Your task to perform on an android device: Search for Mexican restaurants on Maps Image 0: 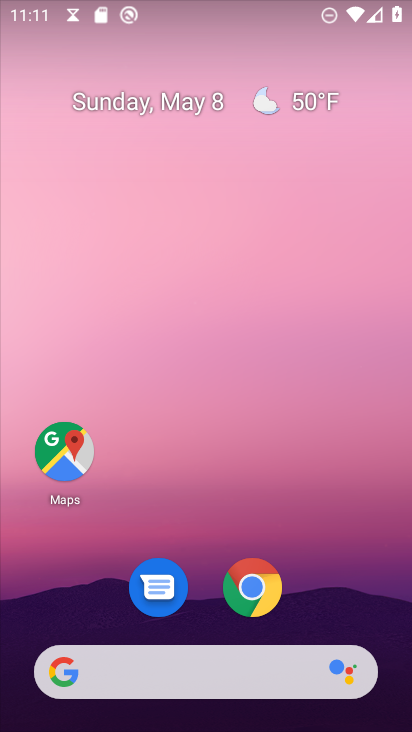
Step 0: click (71, 458)
Your task to perform on an android device: Search for Mexican restaurants on Maps Image 1: 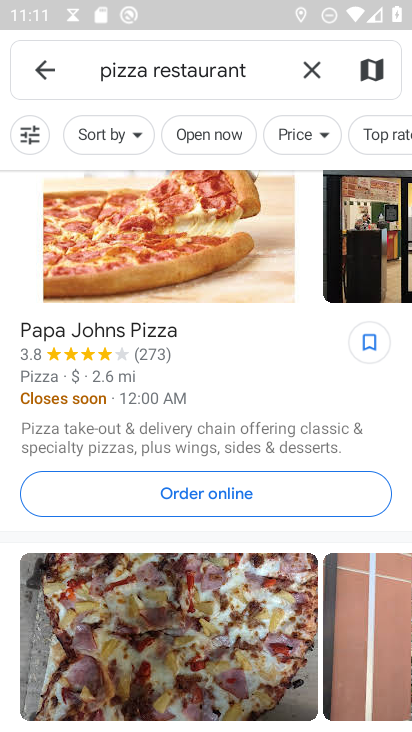
Step 1: click (308, 70)
Your task to perform on an android device: Search for Mexican restaurants on Maps Image 2: 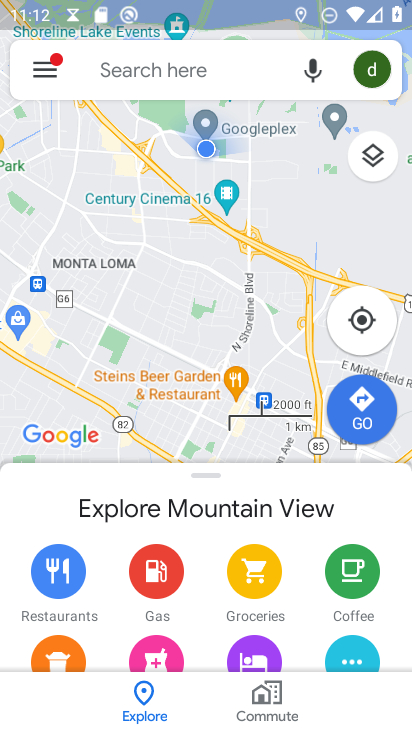
Step 2: click (162, 76)
Your task to perform on an android device: Search for Mexican restaurants on Maps Image 3: 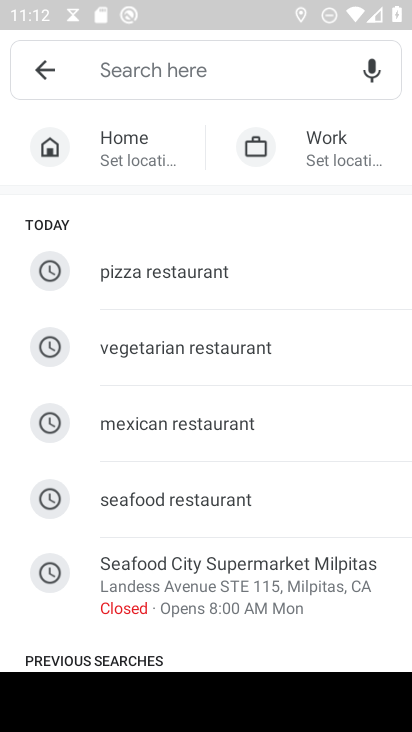
Step 3: click (139, 425)
Your task to perform on an android device: Search for Mexican restaurants on Maps Image 4: 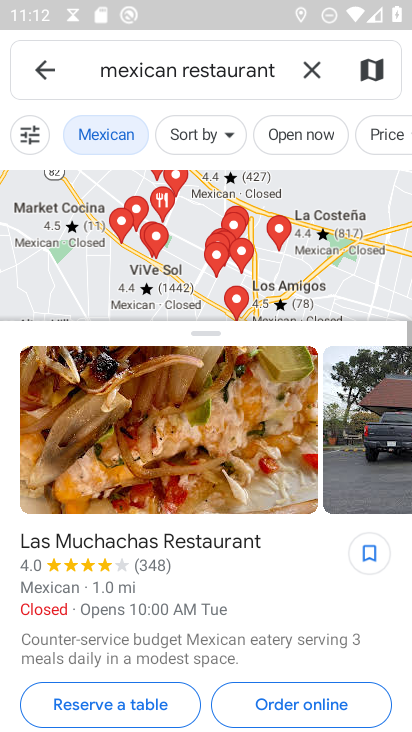
Step 4: task complete